Your task to perform on an android device: create a new album in the google photos Image 0: 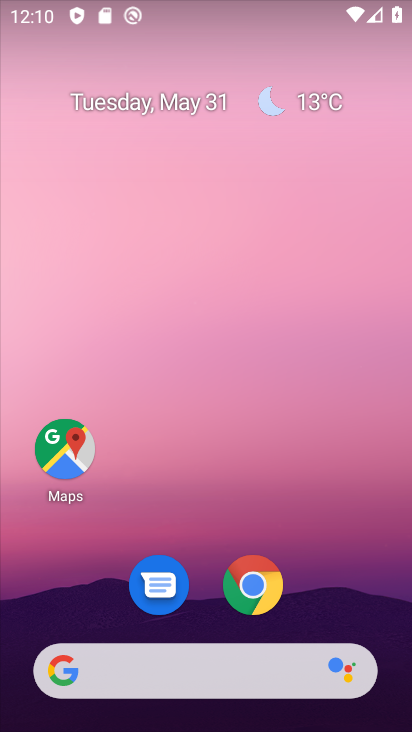
Step 0: drag from (169, 512) to (199, 29)
Your task to perform on an android device: create a new album in the google photos Image 1: 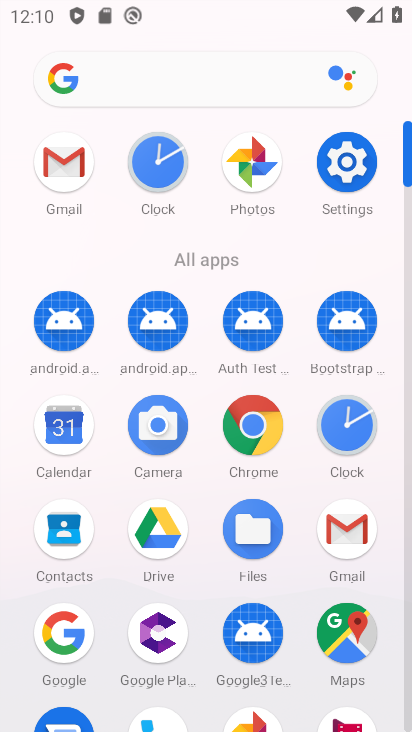
Step 1: click (259, 168)
Your task to perform on an android device: create a new album in the google photos Image 2: 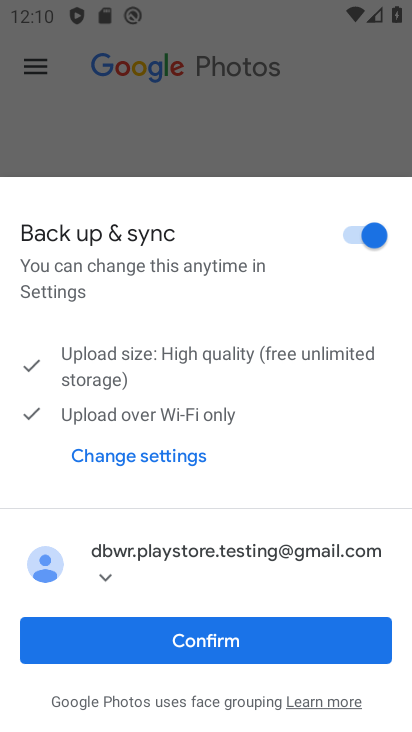
Step 2: click (258, 646)
Your task to perform on an android device: create a new album in the google photos Image 3: 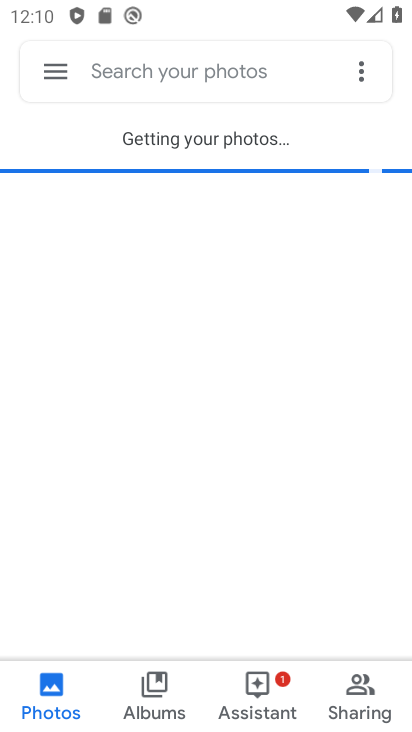
Step 3: click (142, 683)
Your task to perform on an android device: create a new album in the google photos Image 4: 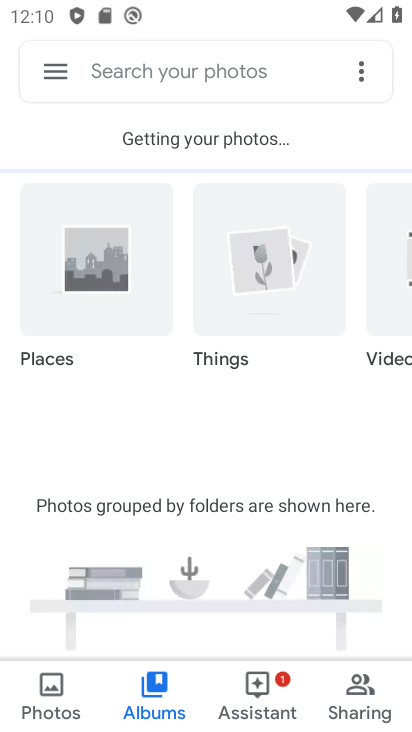
Step 4: drag from (154, 439) to (188, 184)
Your task to perform on an android device: create a new album in the google photos Image 5: 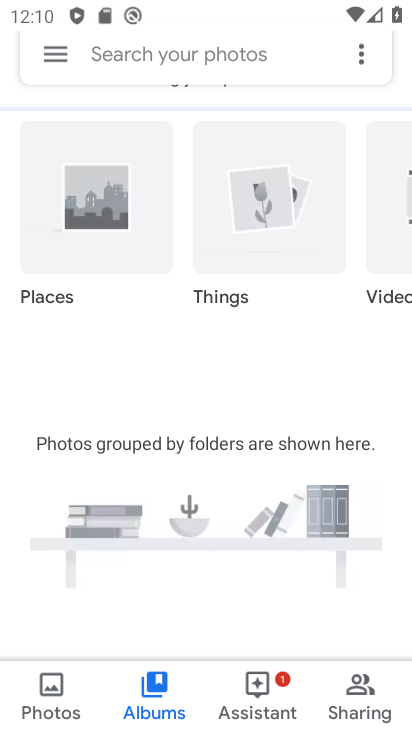
Step 5: drag from (190, 182) to (204, 416)
Your task to perform on an android device: create a new album in the google photos Image 6: 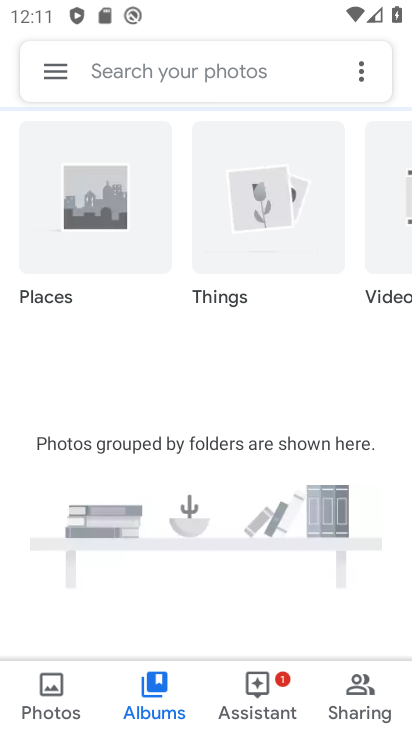
Step 6: drag from (149, 400) to (381, 346)
Your task to perform on an android device: create a new album in the google photos Image 7: 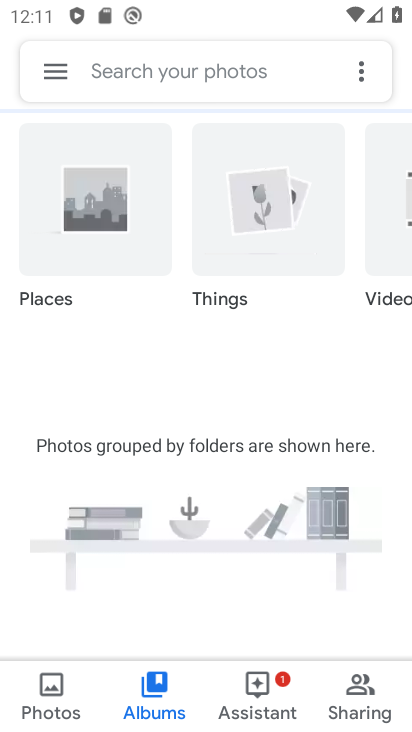
Step 7: click (360, 70)
Your task to perform on an android device: create a new album in the google photos Image 8: 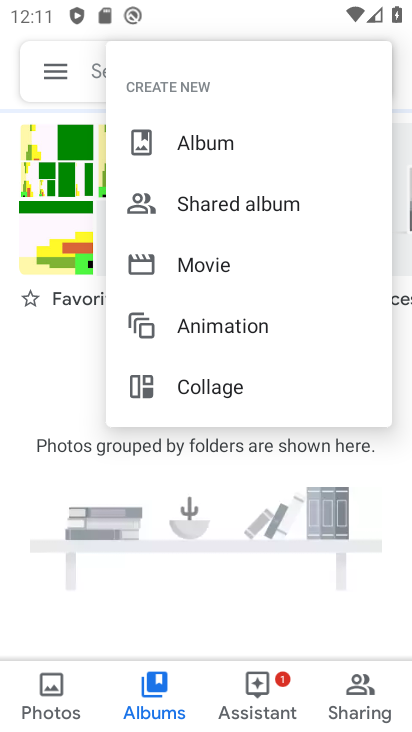
Step 8: click (282, 142)
Your task to perform on an android device: create a new album in the google photos Image 9: 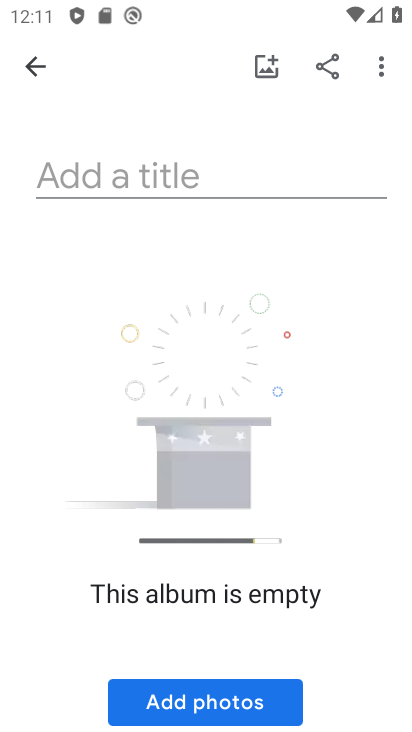
Step 9: click (274, 185)
Your task to perform on an android device: create a new album in the google photos Image 10: 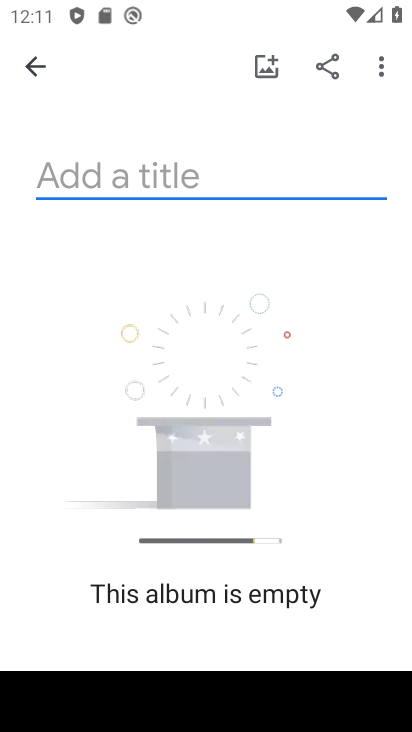
Step 10: type "Kashi Vishwanath Mandir"
Your task to perform on an android device: create a new album in the google photos Image 11: 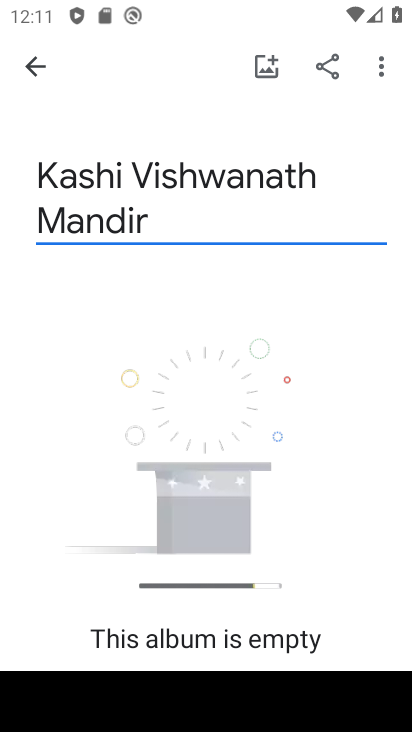
Step 11: drag from (219, 464) to (213, 184)
Your task to perform on an android device: create a new album in the google photos Image 12: 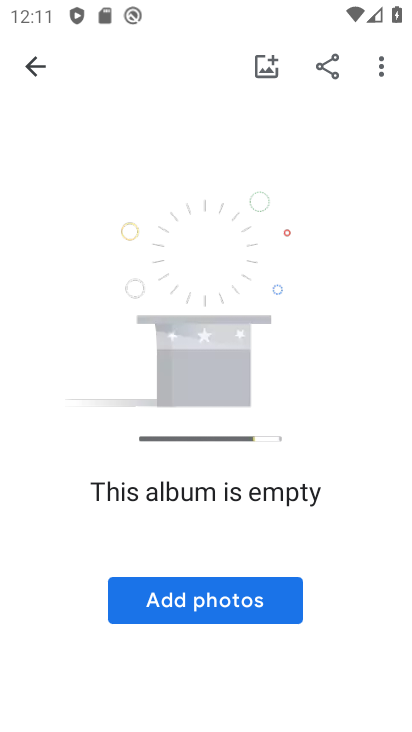
Step 12: click (242, 605)
Your task to perform on an android device: create a new album in the google photos Image 13: 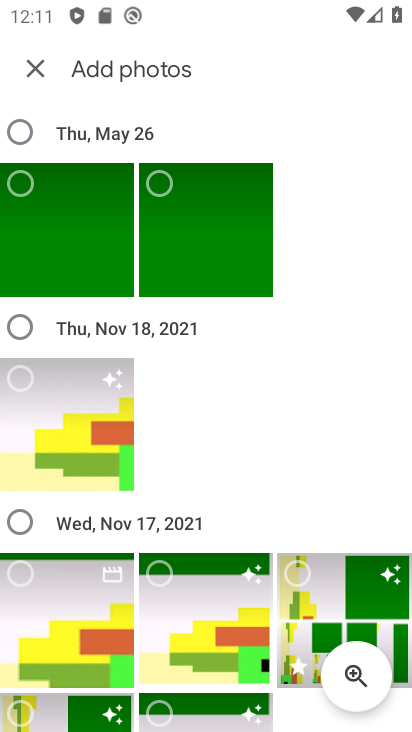
Step 13: click (21, 514)
Your task to perform on an android device: create a new album in the google photos Image 14: 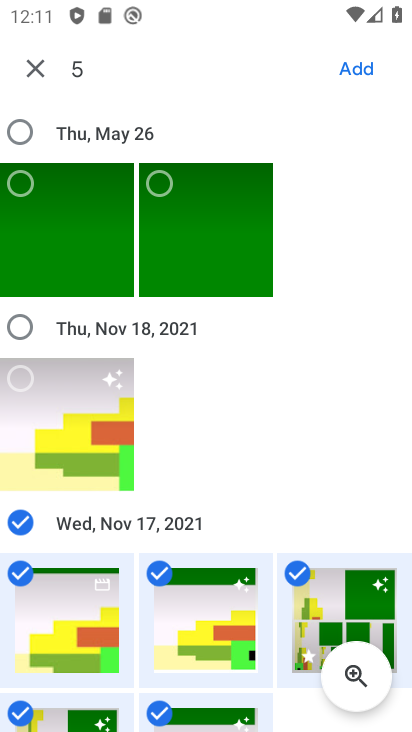
Step 14: click (361, 63)
Your task to perform on an android device: create a new album in the google photos Image 15: 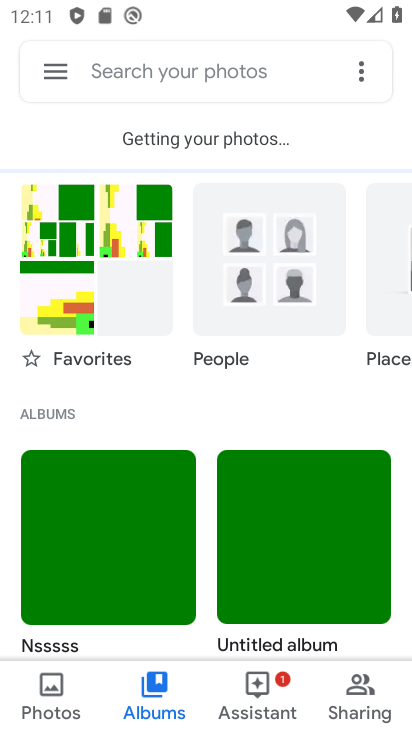
Step 15: task complete